Your task to perform on an android device: Go to Wikipedia Image 0: 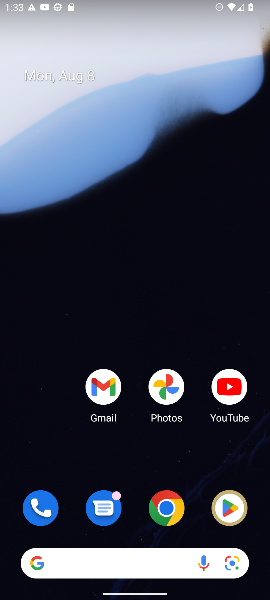
Step 0: drag from (143, 522) to (171, 26)
Your task to perform on an android device: Go to Wikipedia Image 1: 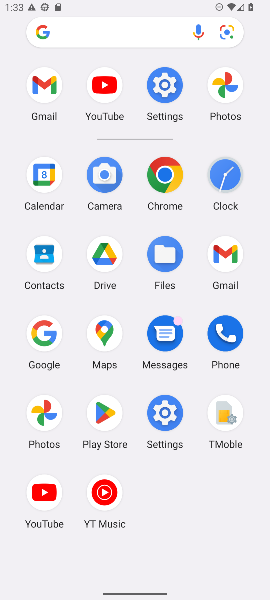
Step 1: click (159, 178)
Your task to perform on an android device: Go to Wikipedia Image 2: 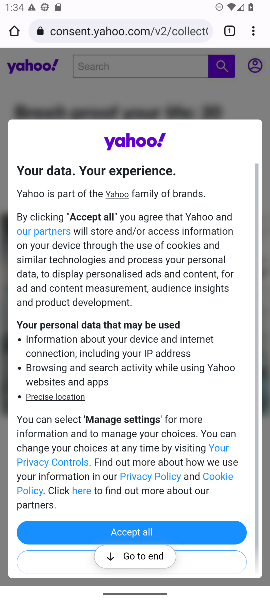
Step 2: click (229, 34)
Your task to perform on an android device: Go to Wikipedia Image 3: 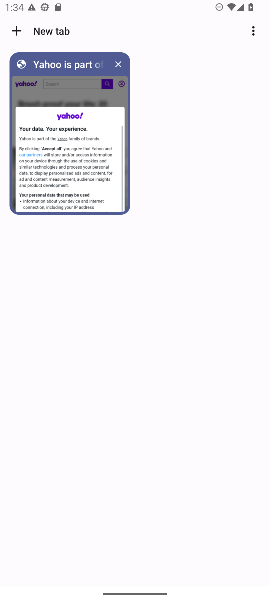
Step 3: click (118, 65)
Your task to perform on an android device: Go to Wikipedia Image 4: 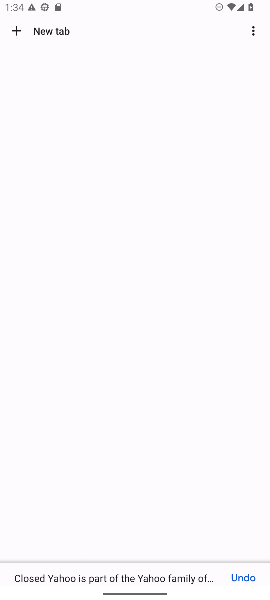
Step 4: click (118, 65)
Your task to perform on an android device: Go to Wikipedia Image 5: 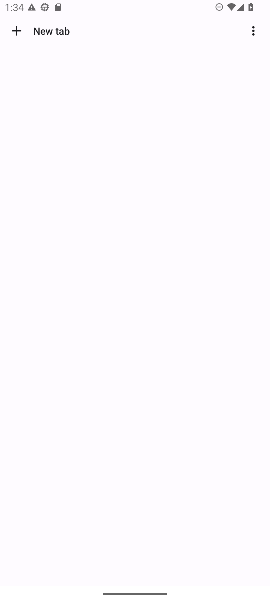
Step 5: click (17, 25)
Your task to perform on an android device: Go to Wikipedia Image 6: 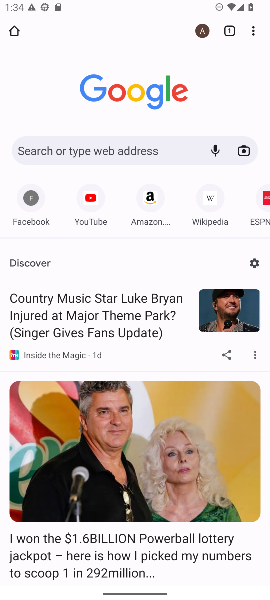
Step 6: click (213, 214)
Your task to perform on an android device: Go to Wikipedia Image 7: 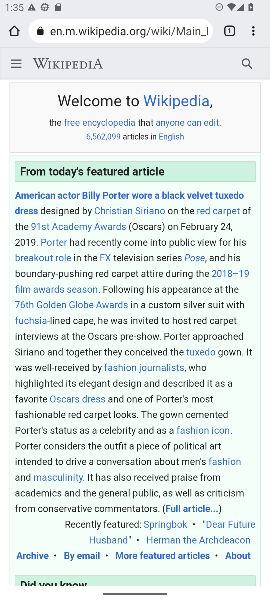
Step 7: task complete